Your task to perform on an android device: What's the weather going to be this weekend? Image 0: 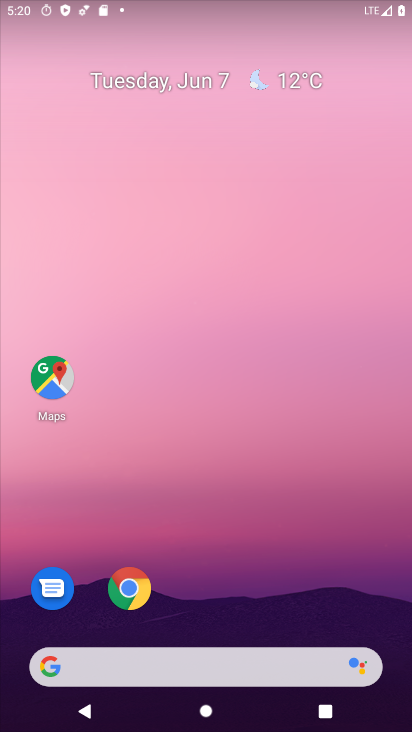
Step 0: click (174, 652)
Your task to perform on an android device: What's the weather going to be this weekend? Image 1: 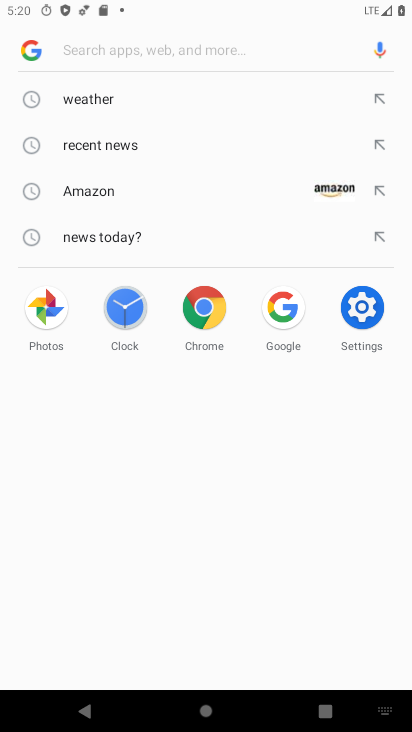
Step 1: click (84, 102)
Your task to perform on an android device: What's the weather going to be this weekend? Image 2: 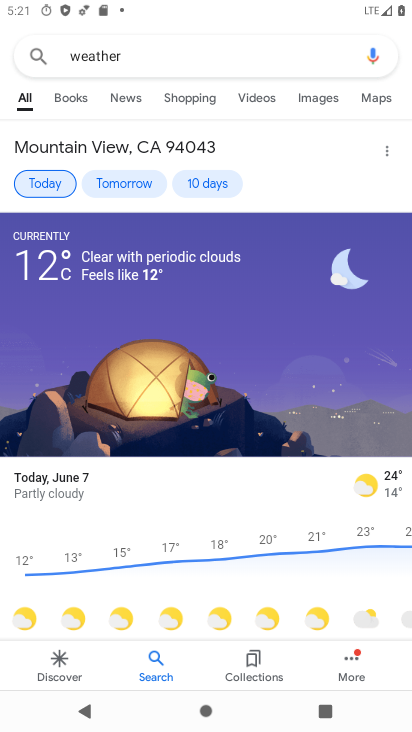
Step 2: click (222, 181)
Your task to perform on an android device: What's the weather going to be this weekend? Image 3: 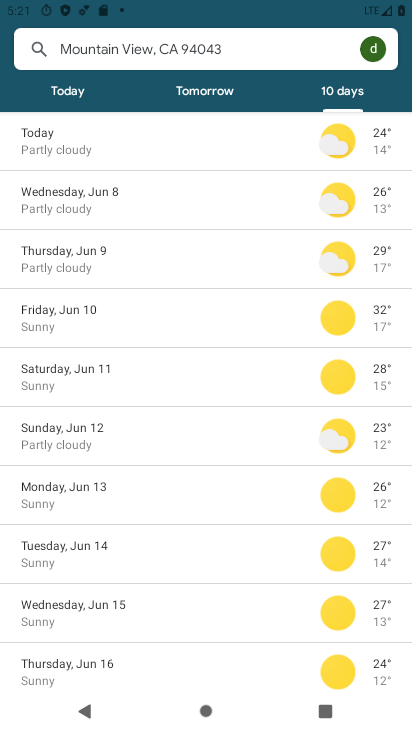
Step 3: task complete